Your task to perform on an android device: Play the last video I watched on Youtube Image 0: 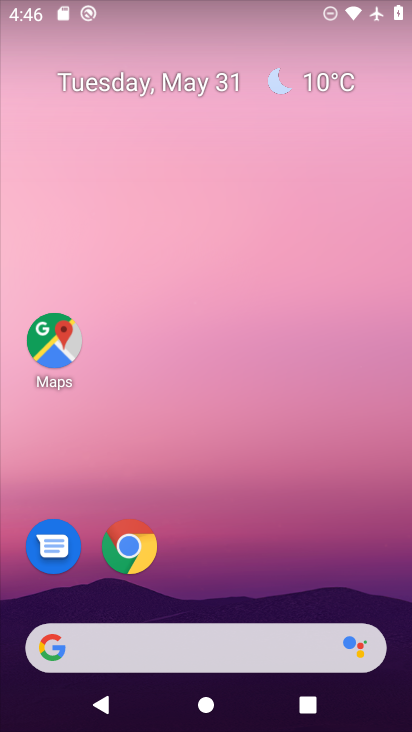
Step 0: drag from (265, 479) to (183, 11)
Your task to perform on an android device: Play the last video I watched on Youtube Image 1: 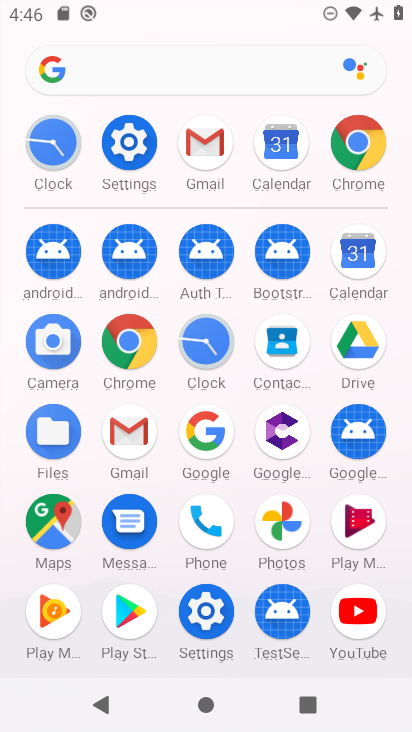
Step 1: click (365, 638)
Your task to perform on an android device: Play the last video I watched on Youtube Image 2: 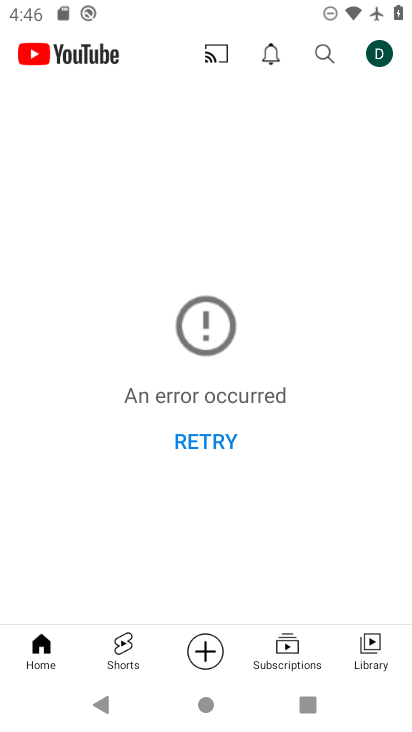
Step 2: click (368, 655)
Your task to perform on an android device: Play the last video I watched on Youtube Image 3: 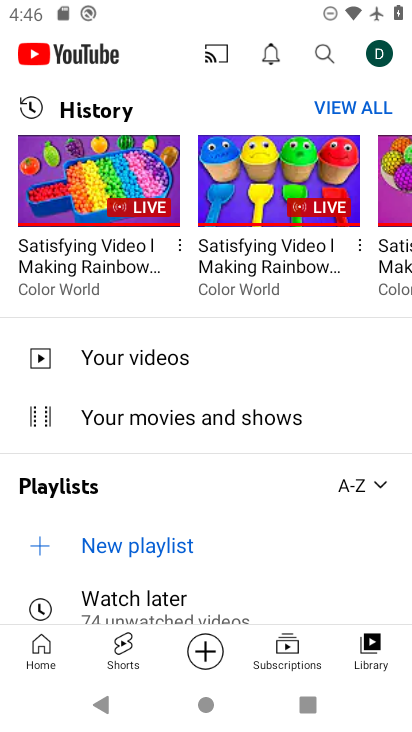
Step 3: click (70, 164)
Your task to perform on an android device: Play the last video I watched on Youtube Image 4: 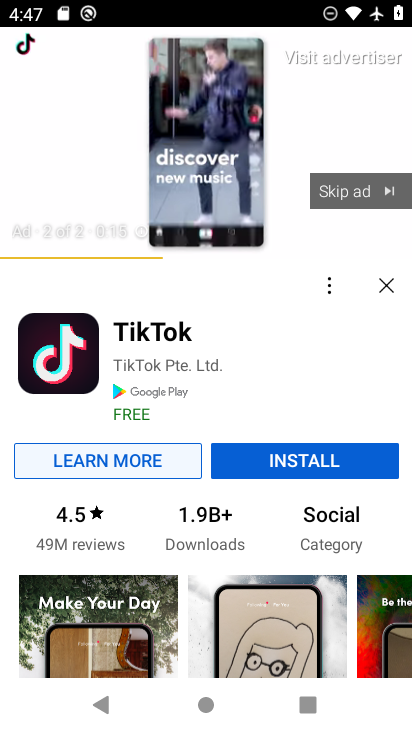
Step 4: click (355, 195)
Your task to perform on an android device: Play the last video I watched on Youtube Image 5: 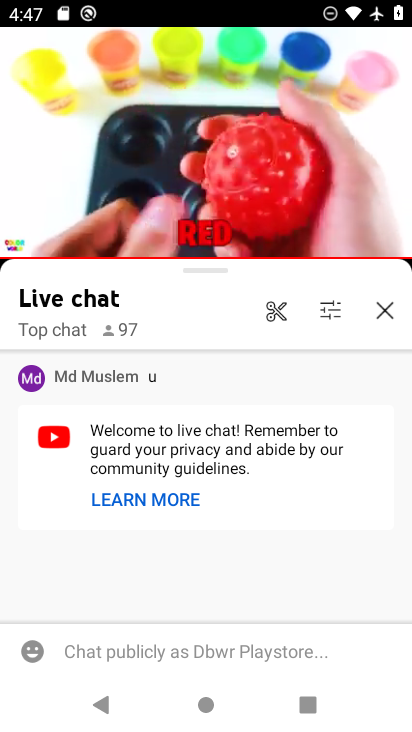
Step 5: click (201, 121)
Your task to perform on an android device: Play the last video I watched on Youtube Image 6: 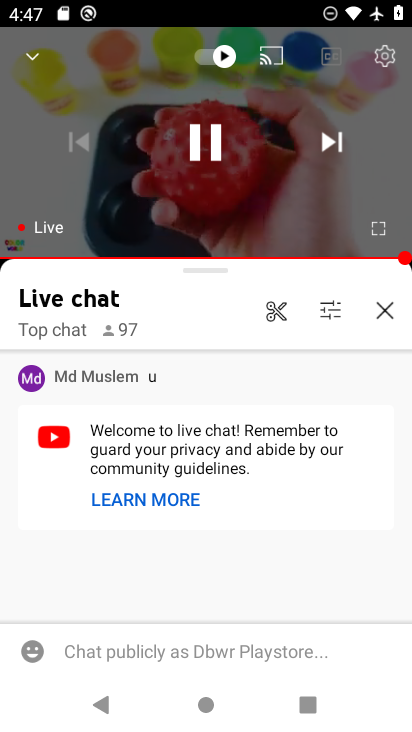
Step 6: click (201, 121)
Your task to perform on an android device: Play the last video I watched on Youtube Image 7: 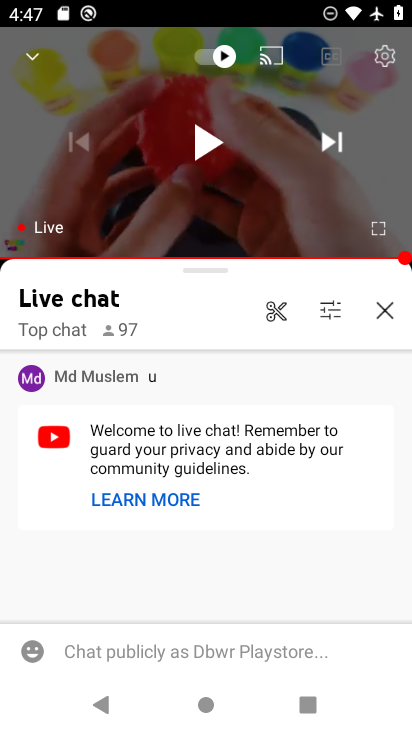
Step 7: task complete